Your task to perform on an android device: delete location history Image 0: 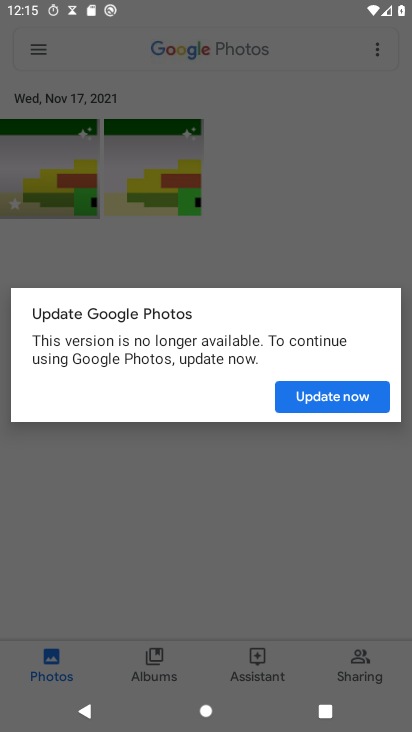
Step 0: press home button
Your task to perform on an android device: delete location history Image 1: 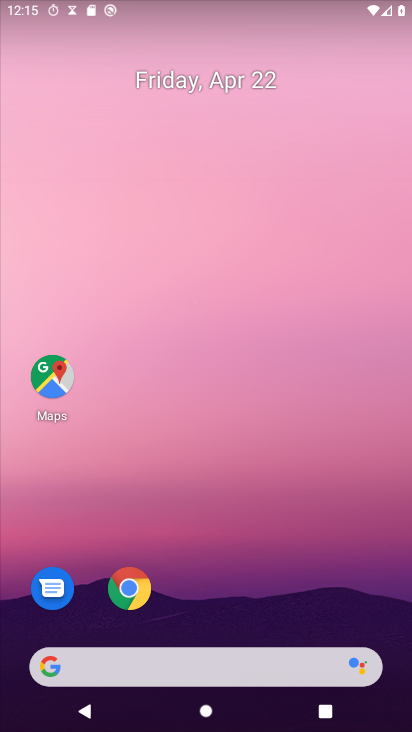
Step 1: drag from (270, 621) to (295, 75)
Your task to perform on an android device: delete location history Image 2: 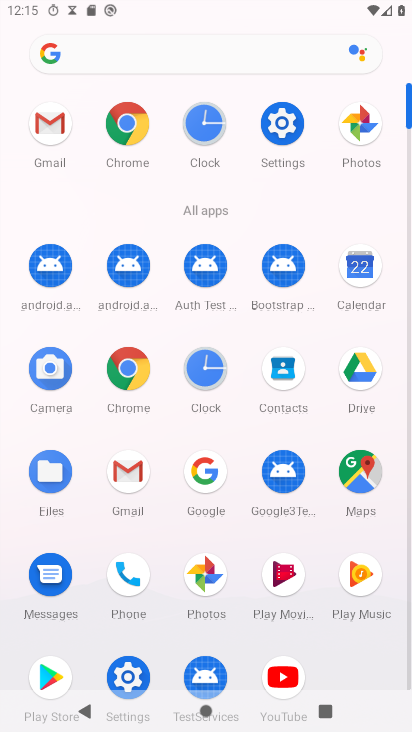
Step 2: click (354, 461)
Your task to perform on an android device: delete location history Image 3: 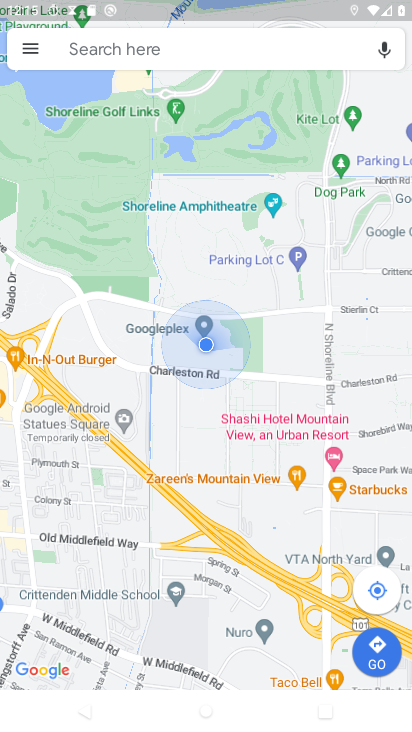
Step 3: click (26, 54)
Your task to perform on an android device: delete location history Image 4: 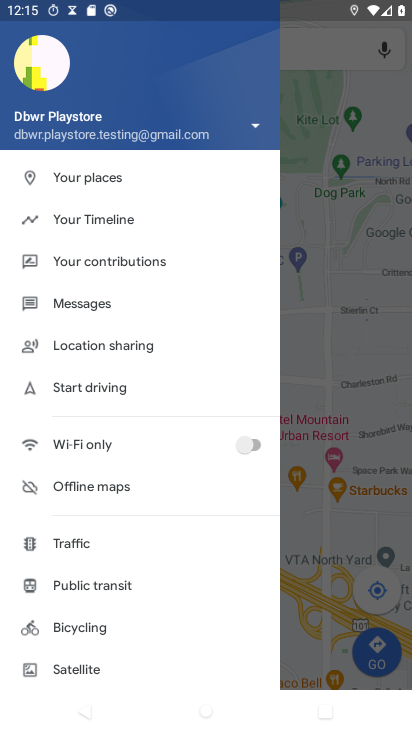
Step 4: click (64, 215)
Your task to perform on an android device: delete location history Image 5: 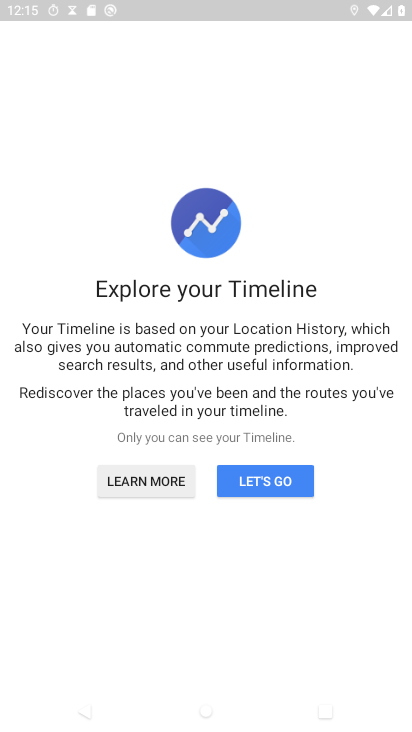
Step 5: click (248, 482)
Your task to perform on an android device: delete location history Image 6: 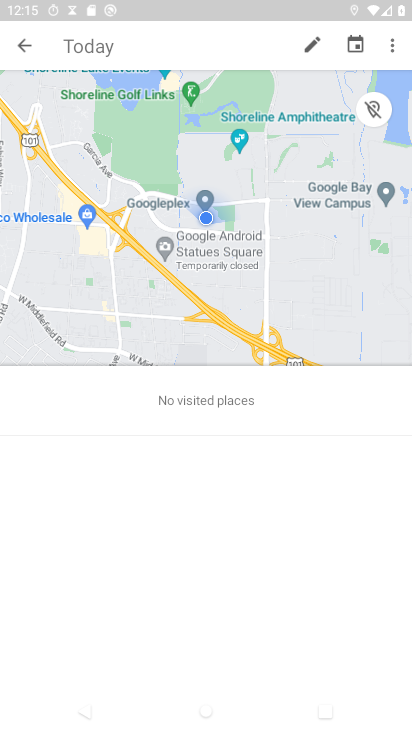
Step 6: click (387, 53)
Your task to perform on an android device: delete location history Image 7: 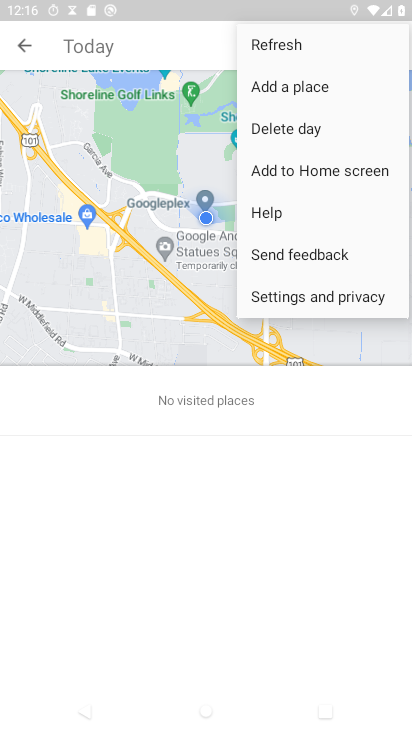
Step 7: click (363, 297)
Your task to perform on an android device: delete location history Image 8: 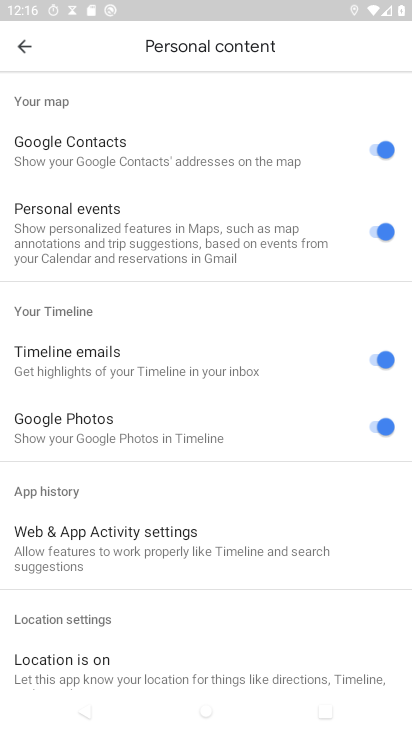
Step 8: drag from (195, 636) to (191, 460)
Your task to perform on an android device: delete location history Image 9: 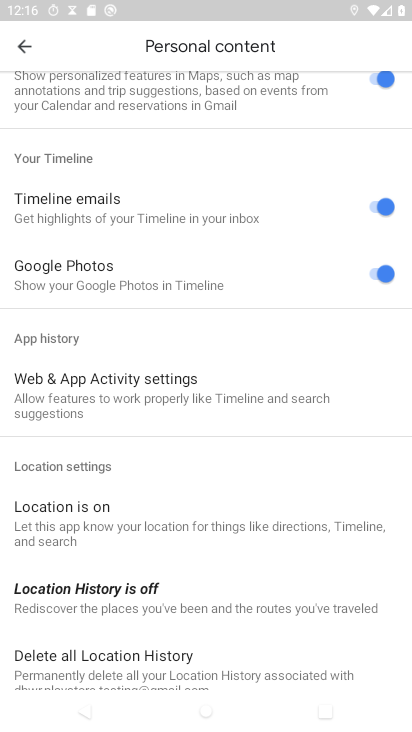
Step 9: drag from (149, 604) to (112, 426)
Your task to perform on an android device: delete location history Image 10: 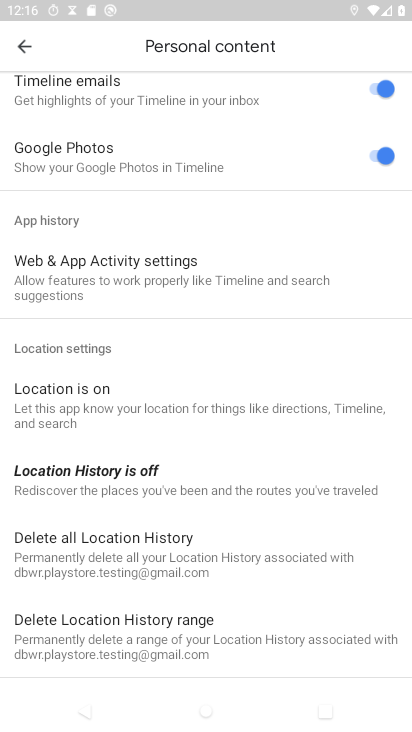
Step 10: click (67, 574)
Your task to perform on an android device: delete location history Image 11: 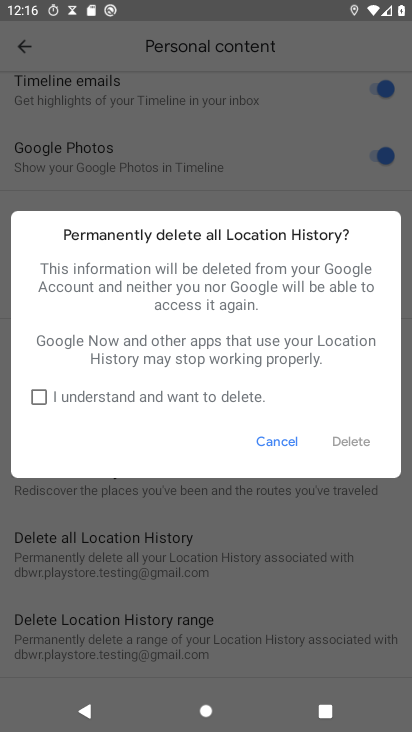
Step 11: click (51, 403)
Your task to perform on an android device: delete location history Image 12: 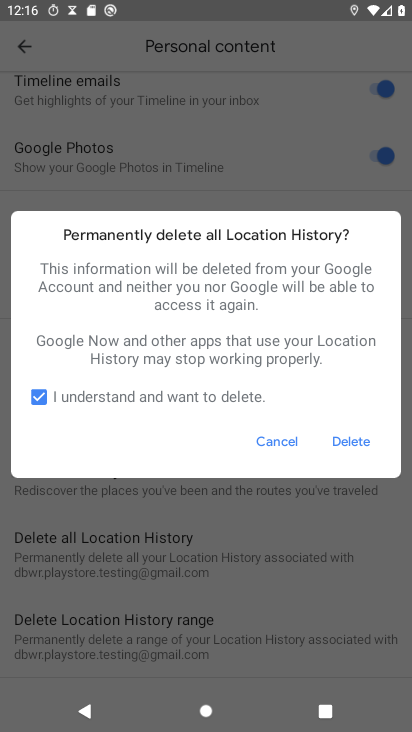
Step 12: click (356, 450)
Your task to perform on an android device: delete location history Image 13: 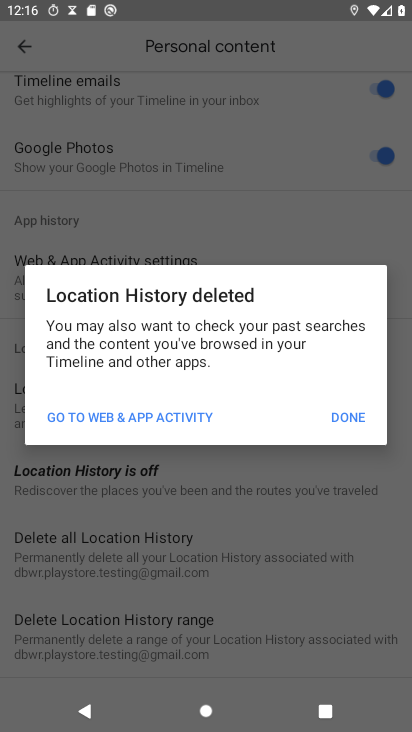
Step 13: click (347, 412)
Your task to perform on an android device: delete location history Image 14: 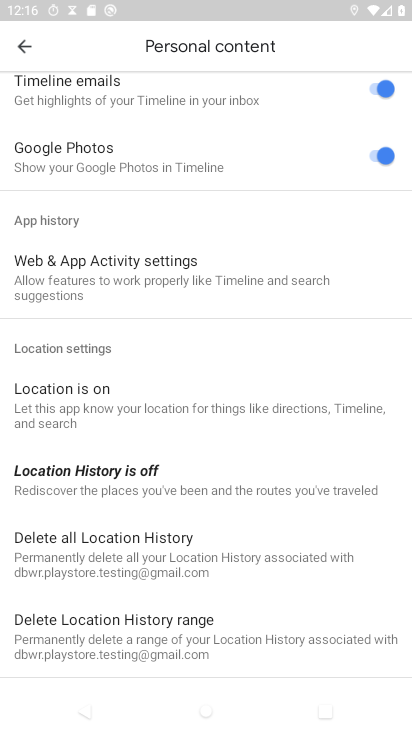
Step 14: task complete